Your task to perform on an android device: delete browsing data in the chrome app Image 0: 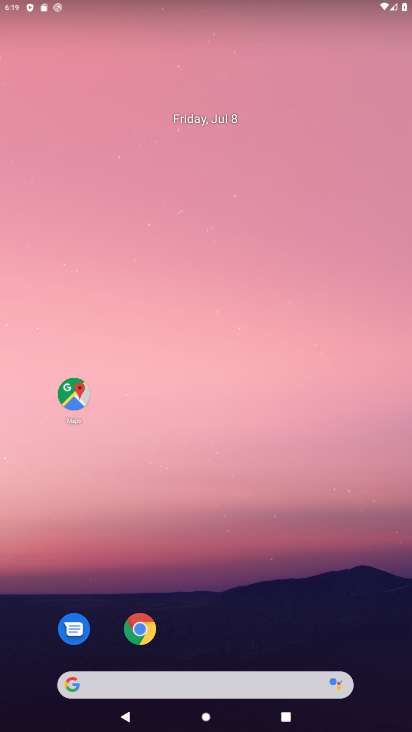
Step 0: click (137, 620)
Your task to perform on an android device: delete browsing data in the chrome app Image 1: 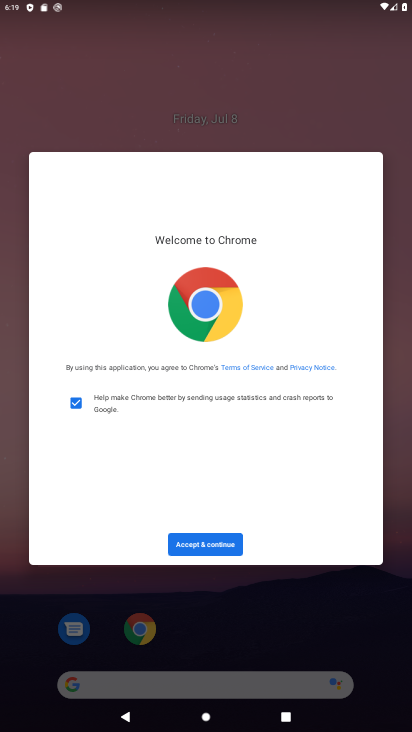
Step 1: click (212, 546)
Your task to perform on an android device: delete browsing data in the chrome app Image 2: 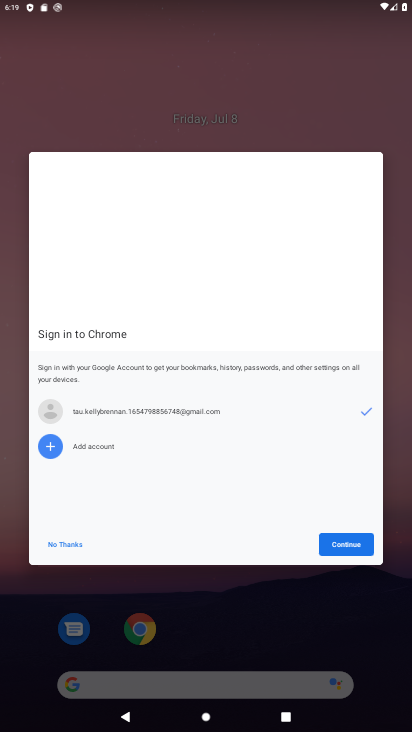
Step 2: click (212, 546)
Your task to perform on an android device: delete browsing data in the chrome app Image 3: 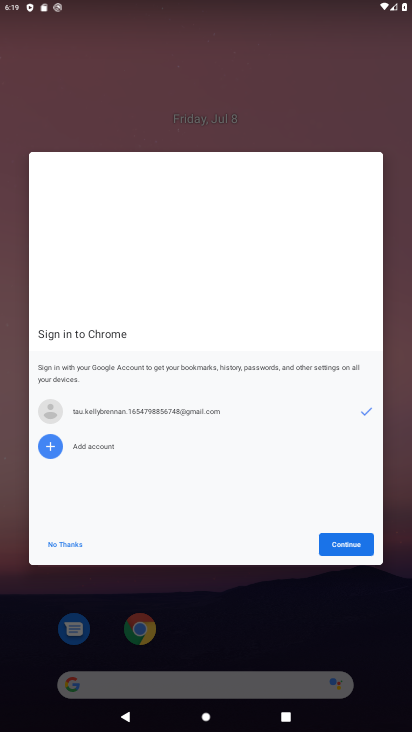
Step 3: click (212, 546)
Your task to perform on an android device: delete browsing data in the chrome app Image 4: 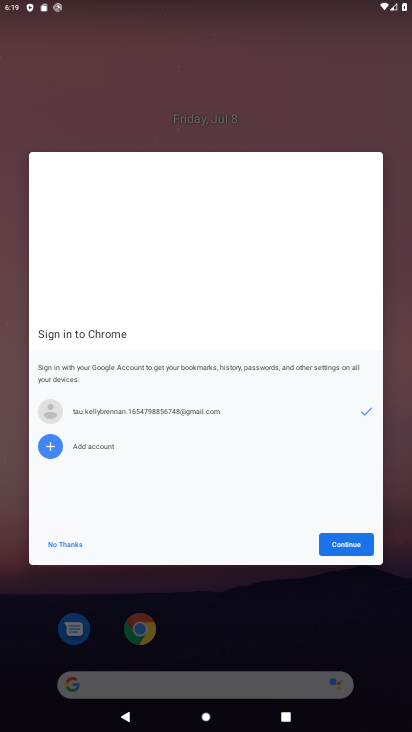
Step 4: click (349, 549)
Your task to perform on an android device: delete browsing data in the chrome app Image 5: 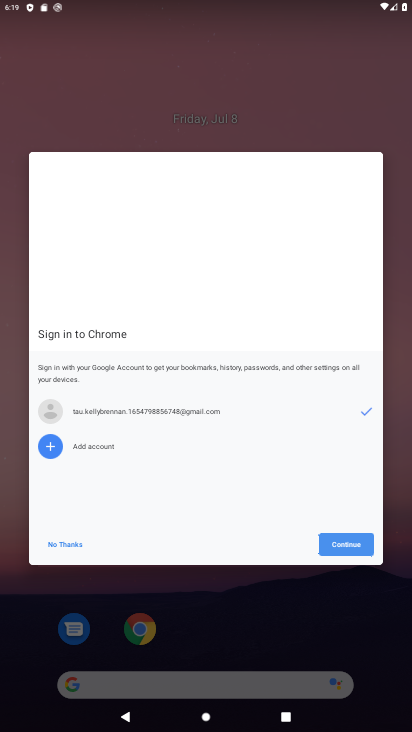
Step 5: click (349, 549)
Your task to perform on an android device: delete browsing data in the chrome app Image 6: 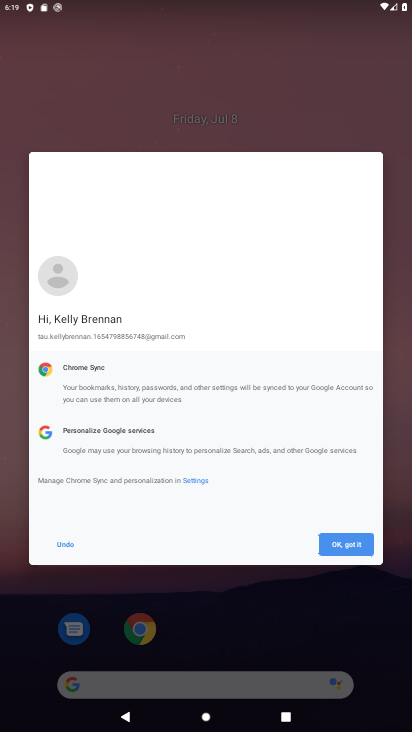
Step 6: click (349, 549)
Your task to perform on an android device: delete browsing data in the chrome app Image 7: 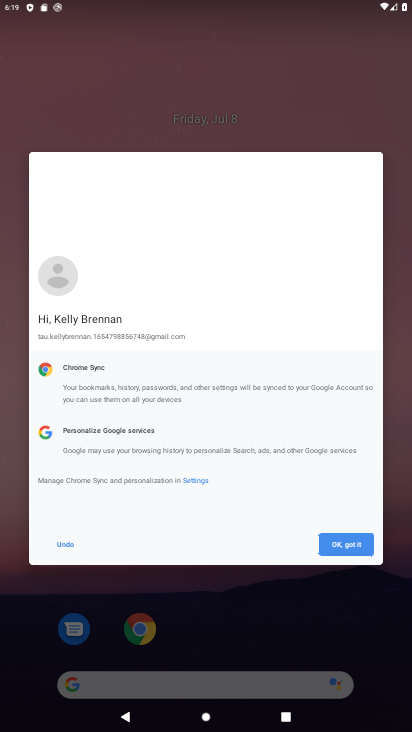
Step 7: click (349, 549)
Your task to perform on an android device: delete browsing data in the chrome app Image 8: 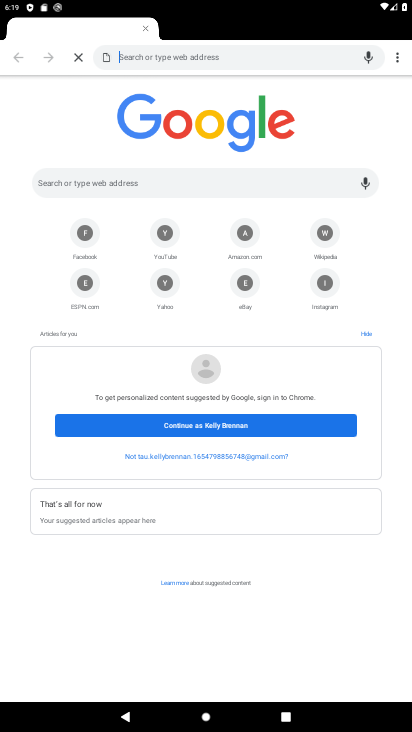
Step 8: drag from (395, 49) to (271, 258)
Your task to perform on an android device: delete browsing data in the chrome app Image 9: 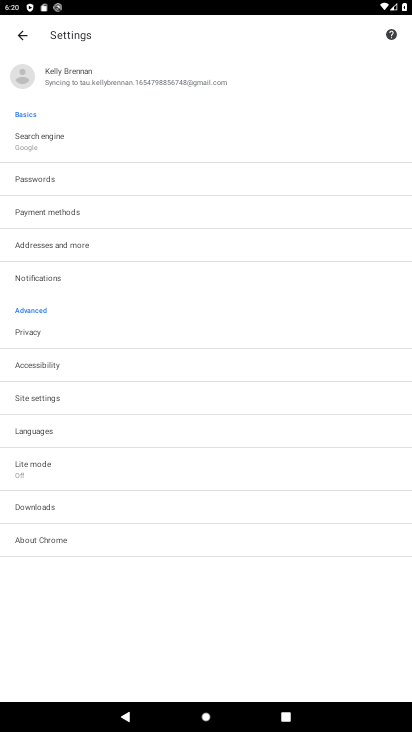
Step 9: click (21, 35)
Your task to perform on an android device: delete browsing data in the chrome app Image 10: 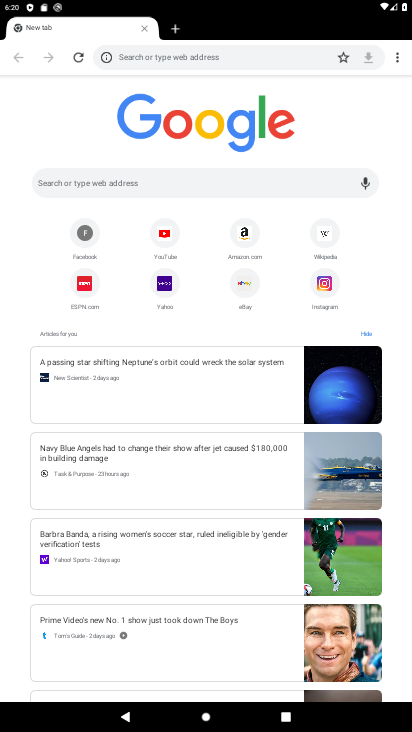
Step 10: drag from (398, 55) to (304, 261)
Your task to perform on an android device: delete browsing data in the chrome app Image 11: 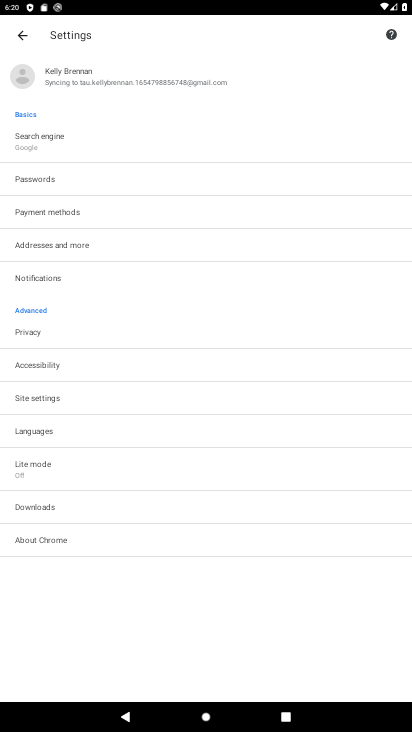
Step 11: click (51, 344)
Your task to perform on an android device: delete browsing data in the chrome app Image 12: 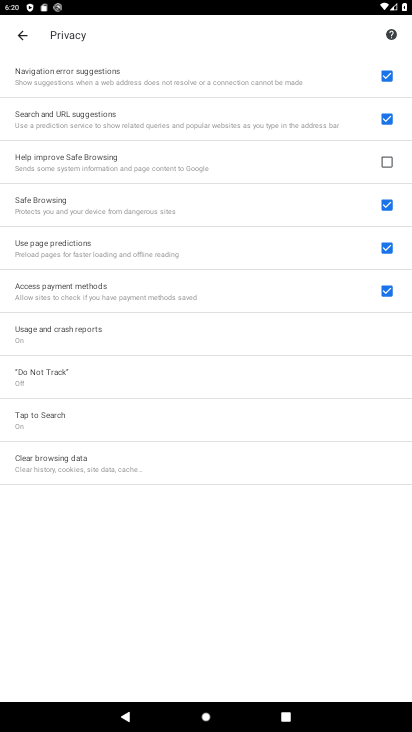
Step 12: click (94, 465)
Your task to perform on an android device: delete browsing data in the chrome app Image 13: 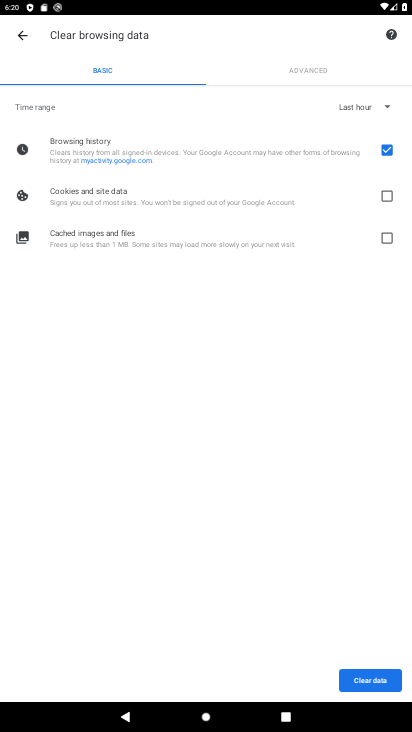
Step 13: click (368, 684)
Your task to perform on an android device: delete browsing data in the chrome app Image 14: 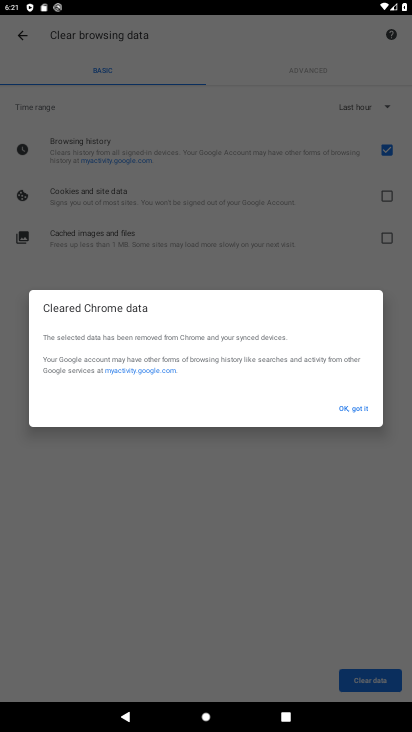
Step 14: click (343, 412)
Your task to perform on an android device: delete browsing data in the chrome app Image 15: 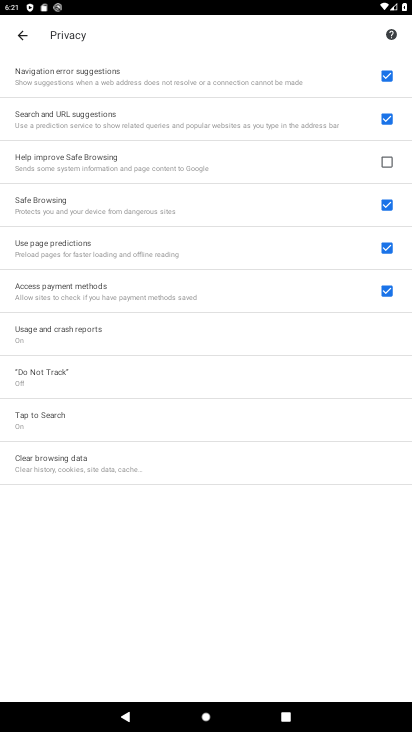
Step 15: task complete